Your task to perform on an android device: turn on showing notifications on the lock screen Image 0: 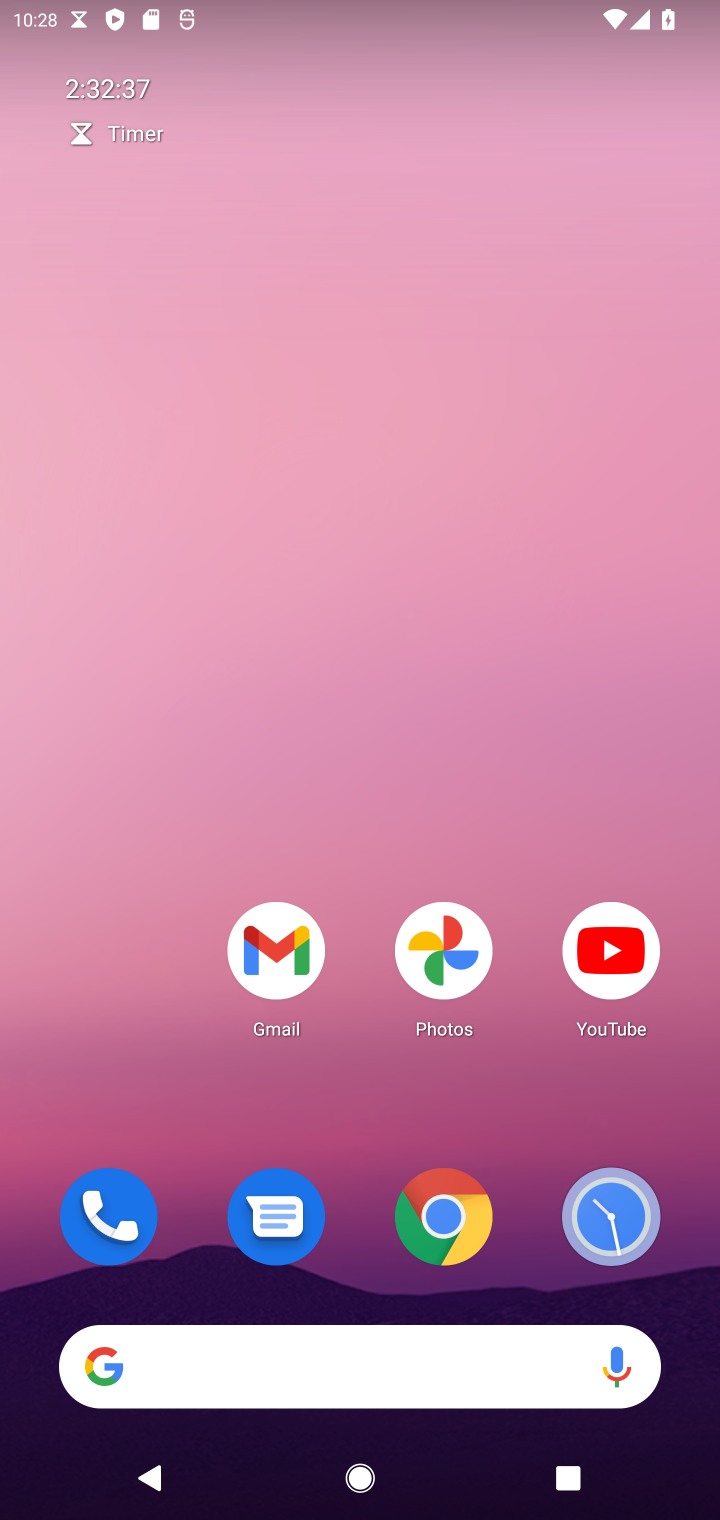
Step 0: drag from (200, 781) to (310, 127)
Your task to perform on an android device: turn on showing notifications on the lock screen Image 1: 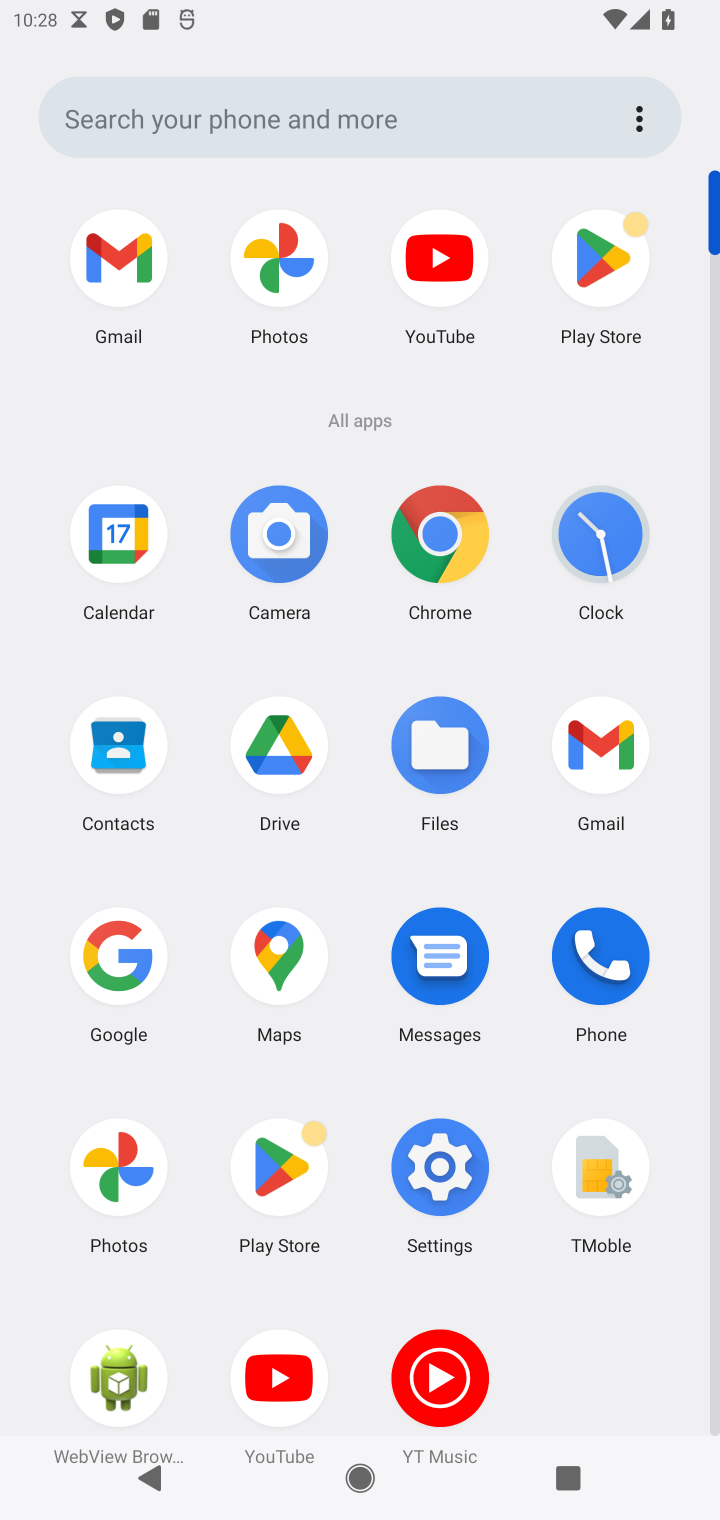
Step 1: click (457, 1155)
Your task to perform on an android device: turn on showing notifications on the lock screen Image 2: 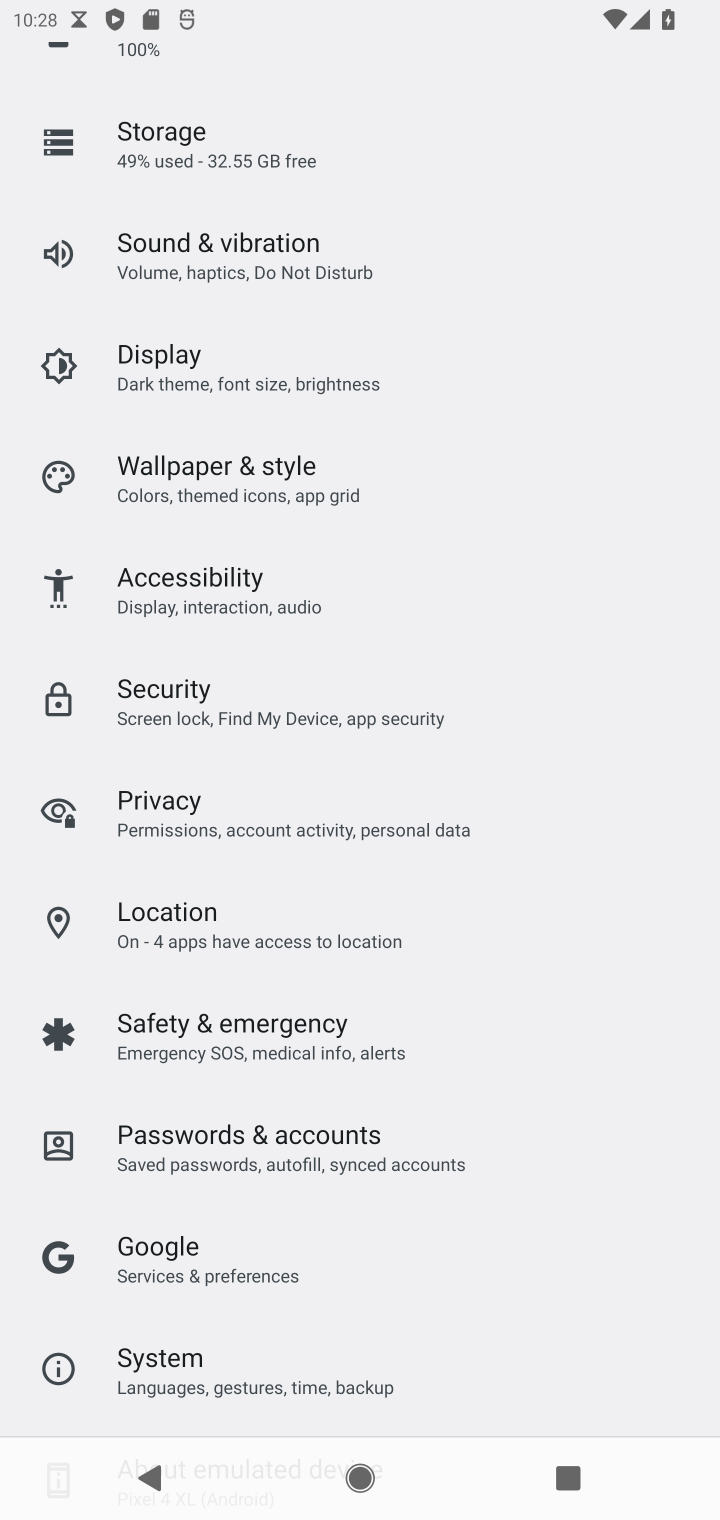
Step 2: drag from (414, 347) to (304, 1395)
Your task to perform on an android device: turn on showing notifications on the lock screen Image 3: 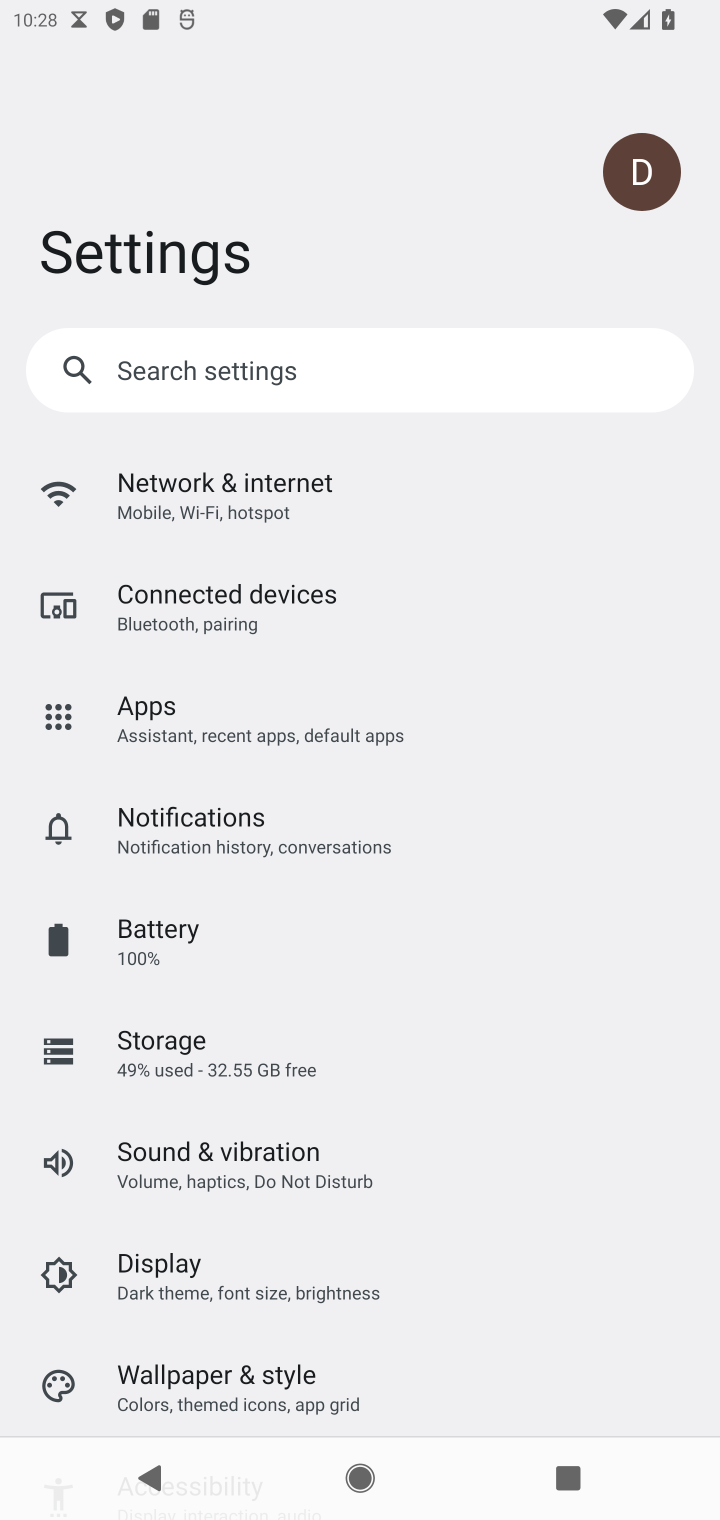
Step 3: click (306, 827)
Your task to perform on an android device: turn on showing notifications on the lock screen Image 4: 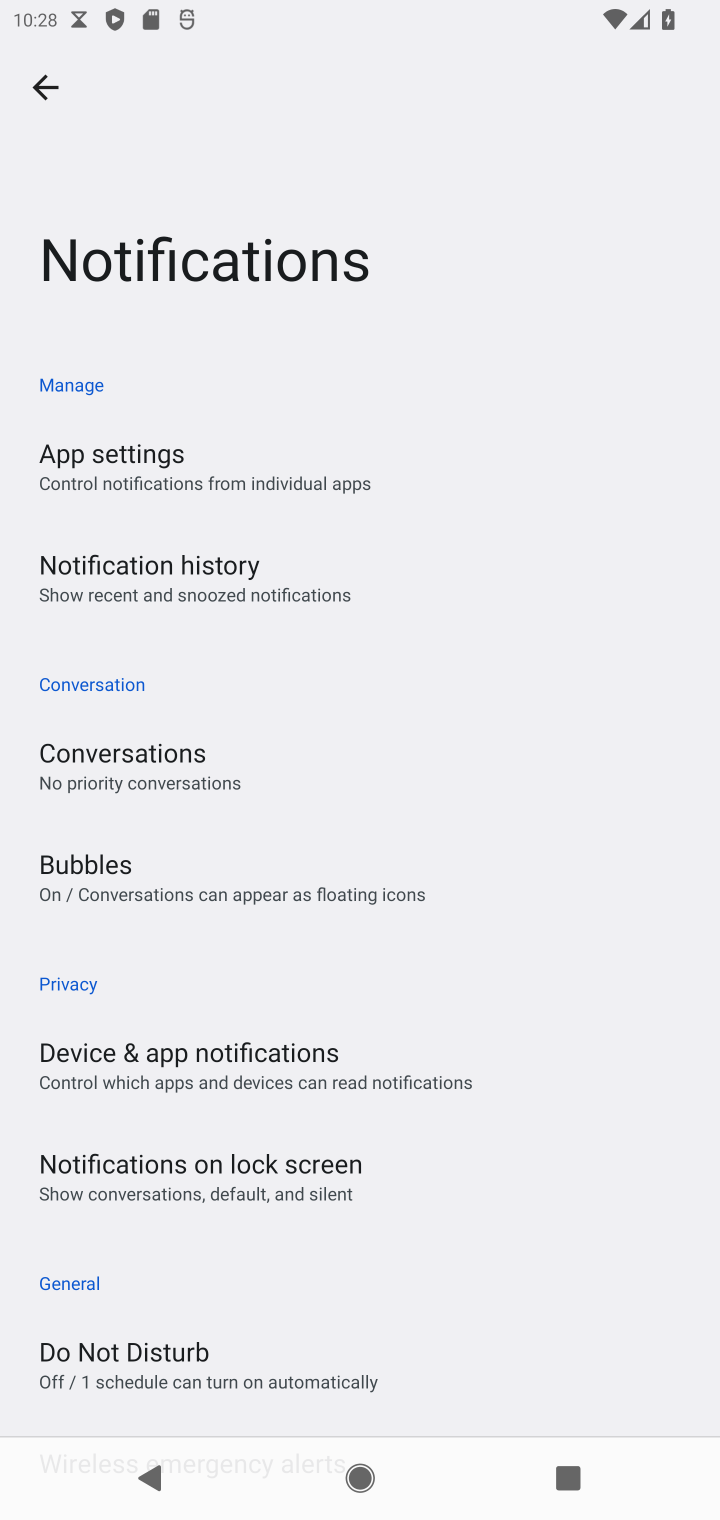
Step 4: click (222, 1183)
Your task to perform on an android device: turn on showing notifications on the lock screen Image 5: 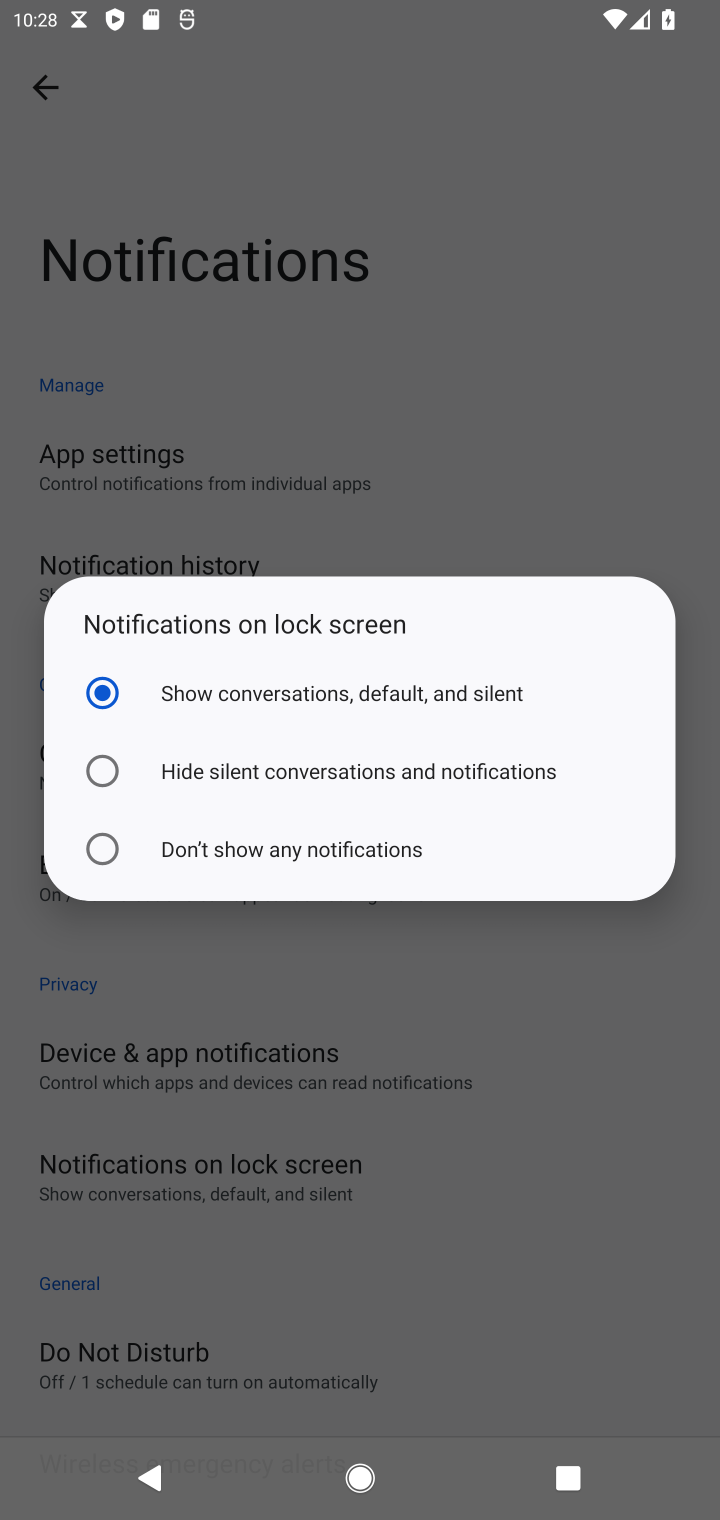
Step 5: click (97, 680)
Your task to perform on an android device: turn on showing notifications on the lock screen Image 6: 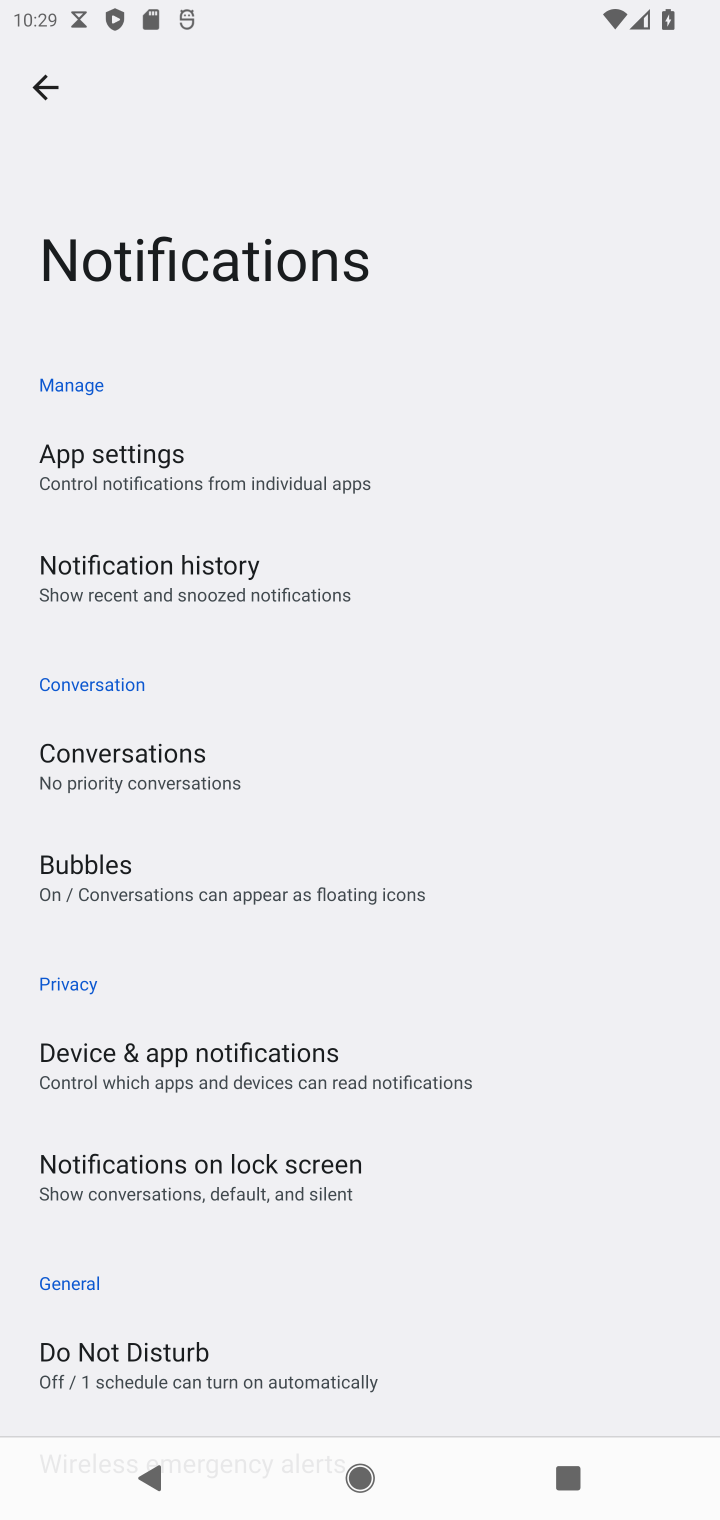
Step 6: task complete